Your task to perform on an android device: Show the shopping cart on newegg.com. Add "razer nari" to the cart on newegg.com Image 0: 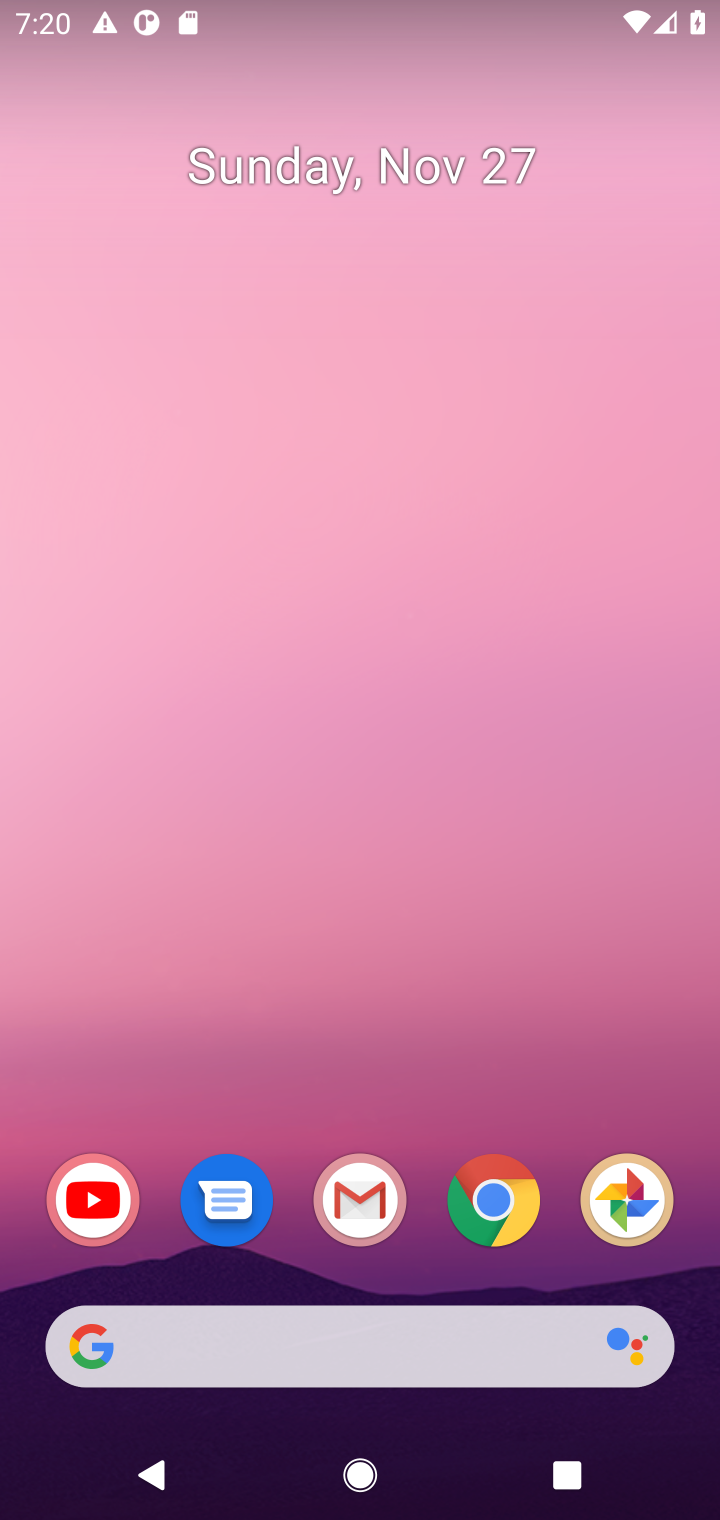
Step 0: click (503, 1212)
Your task to perform on an android device: Show the shopping cart on newegg.com. Add "razer nari" to the cart on newegg.com Image 1: 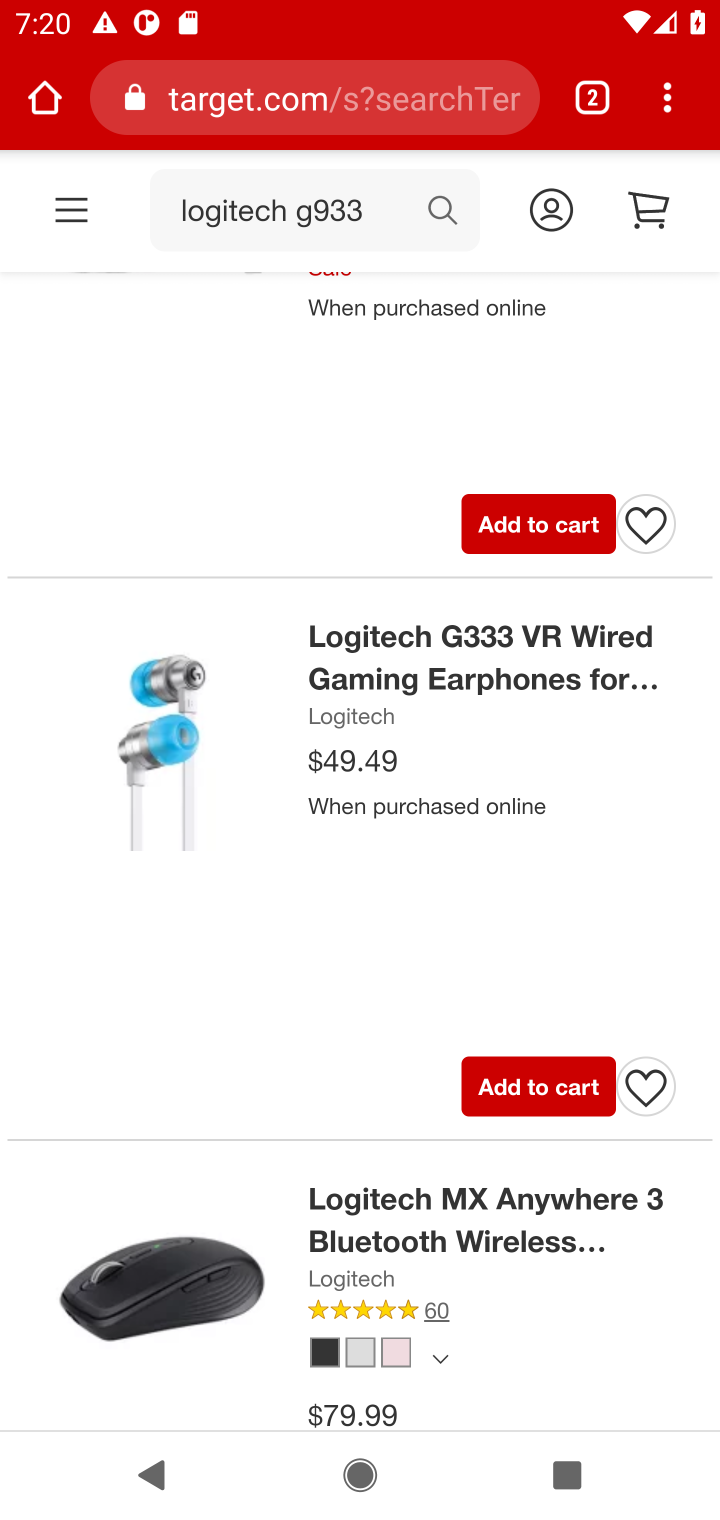
Step 1: click (232, 104)
Your task to perform on an android device: Show the shopping cart on newegg.com. Add "razer nari" to the cart on newegg.com Image 2: 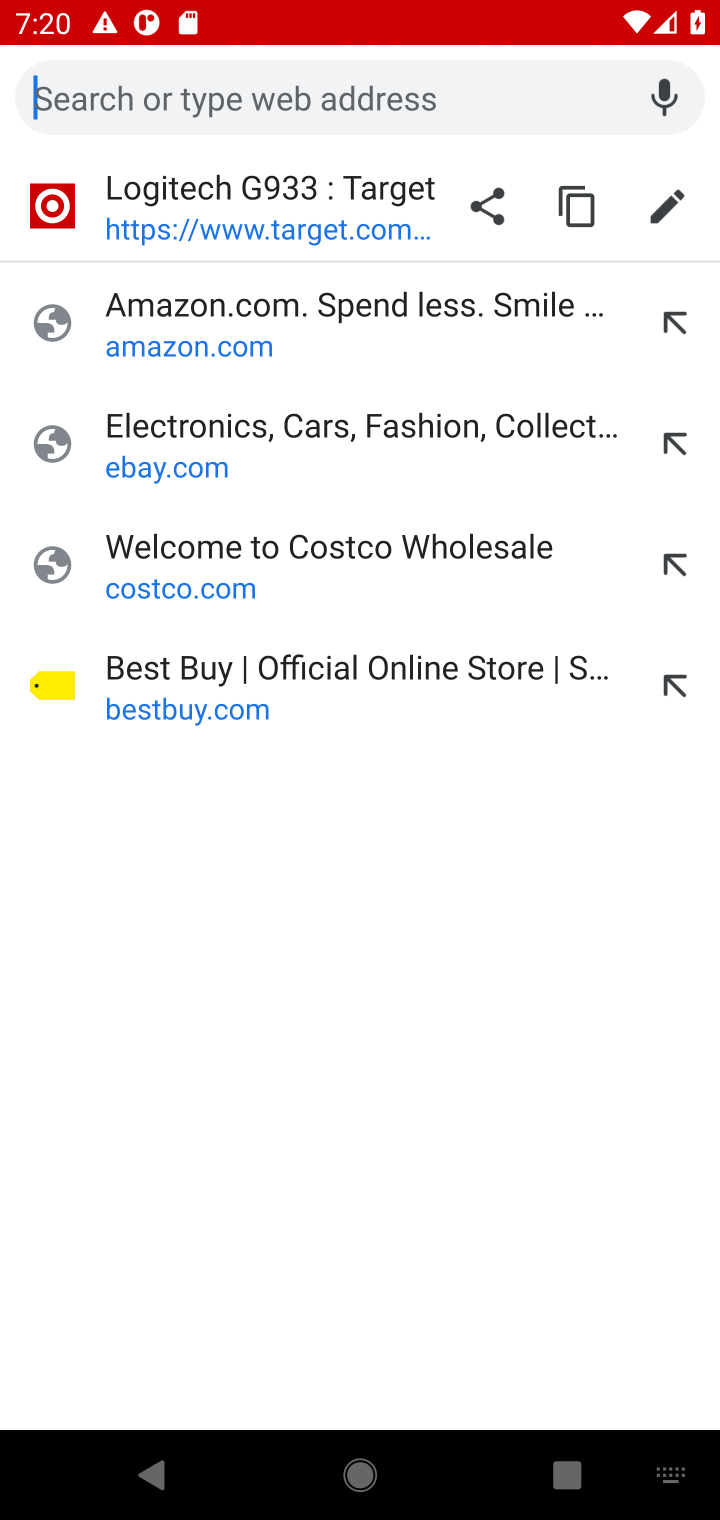
Step 2: type "newegg.com"
Your task to perform on an android device: Show the shopping cart on newegg.com. Add "razer nari" to the cart on newegg.com Image 3: 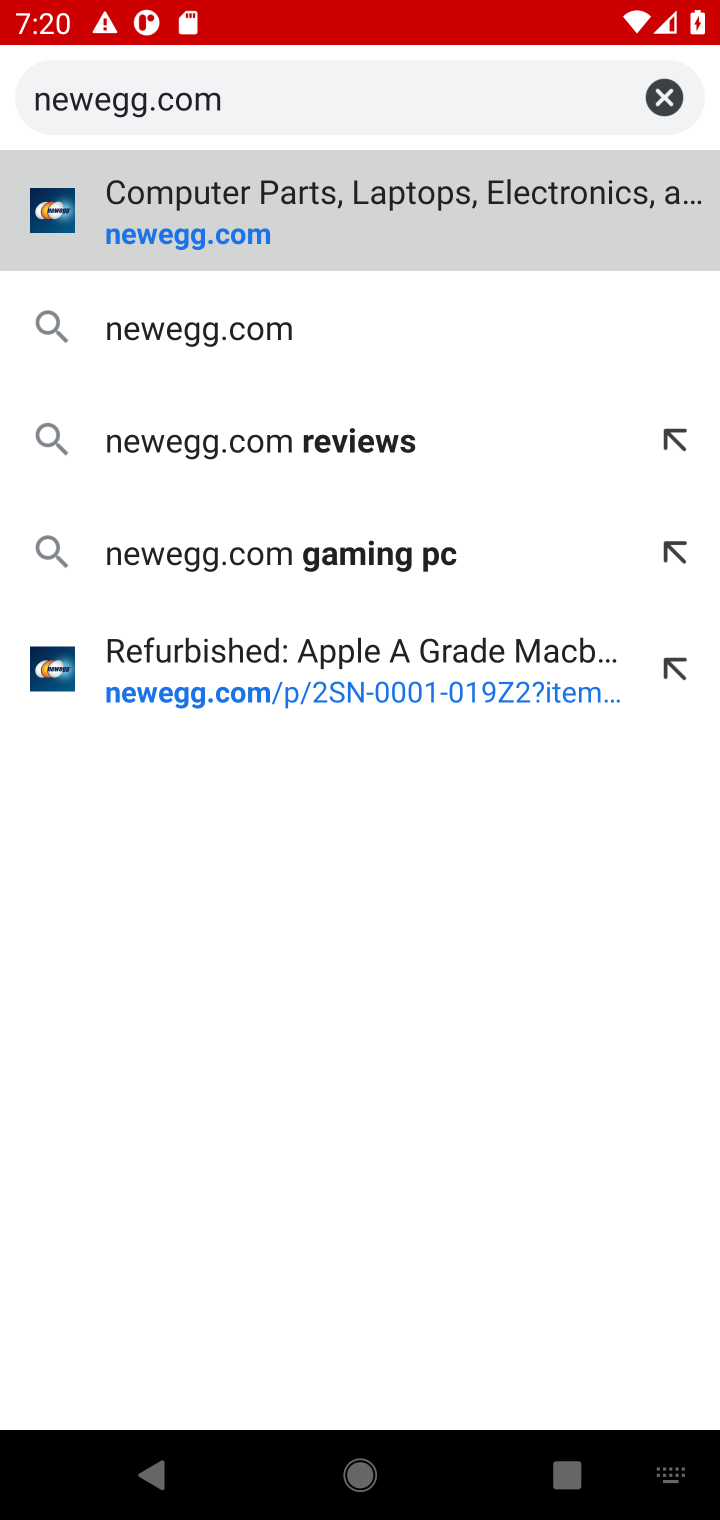
Step 3: click (178, 247)
Your task to perform on an android device: Show the shopping cart on newegg.com. Add "razer nari" to the cart on newegg.com Image 4: 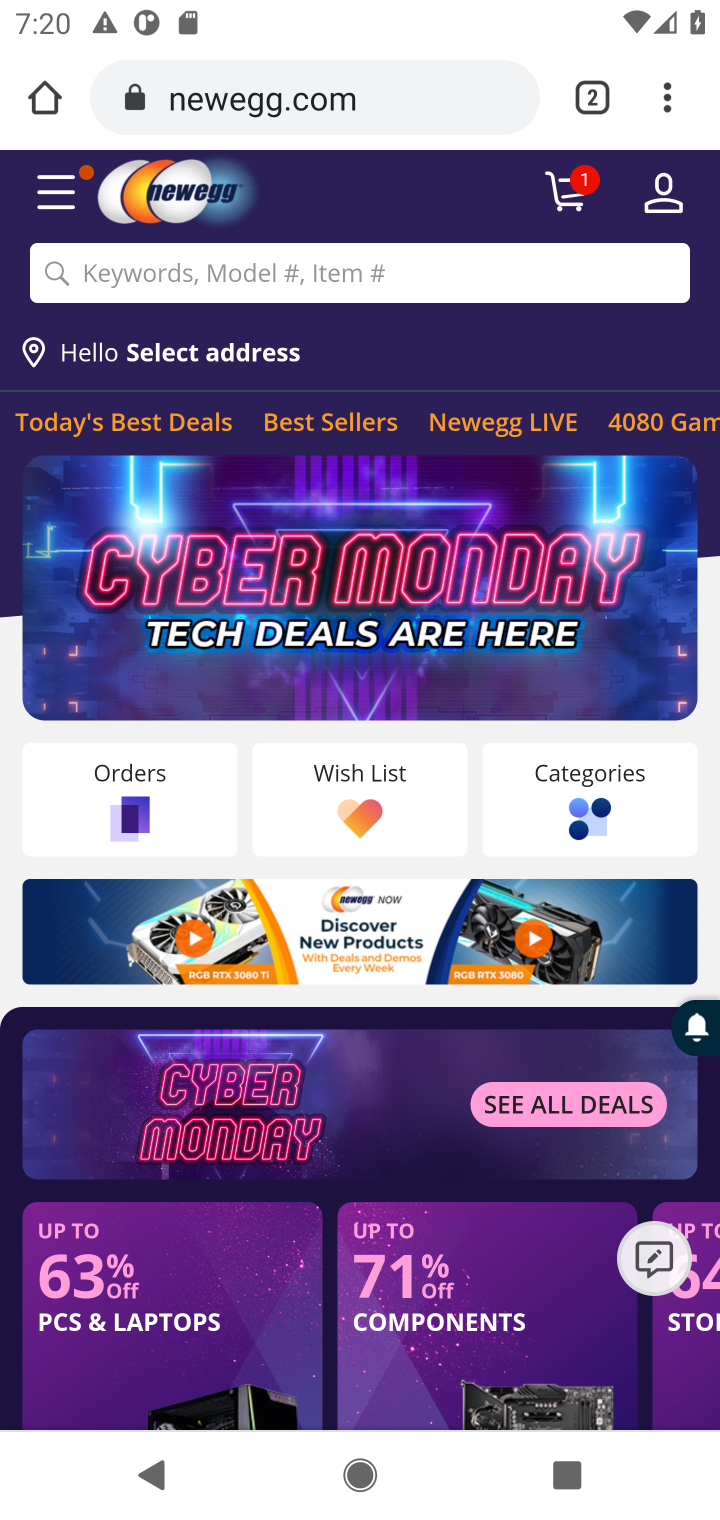
Step 4: click (574, 187)
Your task to perform on an android device: Show the shopping cart on newegg.com. Add "razer nari" to the cart on newegg.com Image 5: 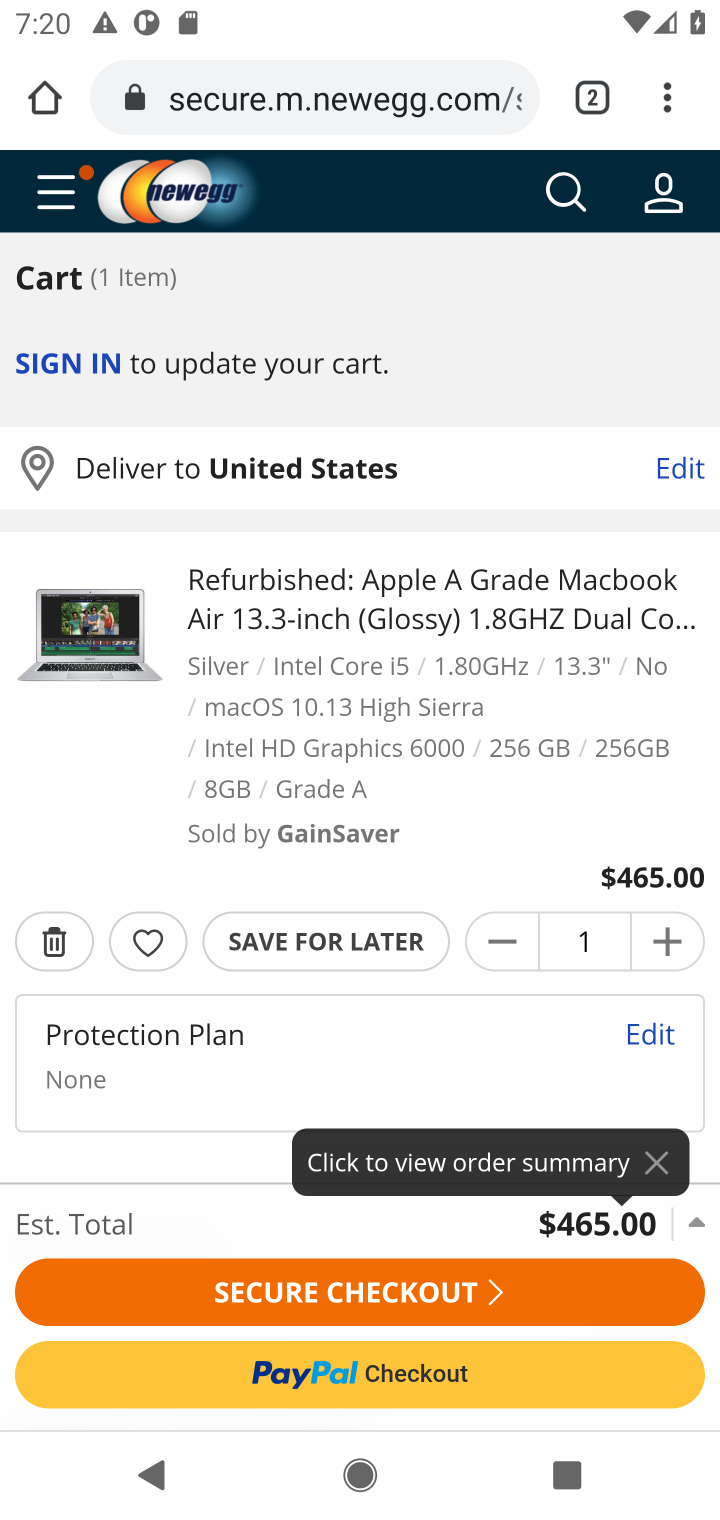
Step 5: click (556, 197)
Your task to perform on an android device: Show the shopping cart on newegg.com. Add "razer nari" to the cart on newegg.com Image 6: 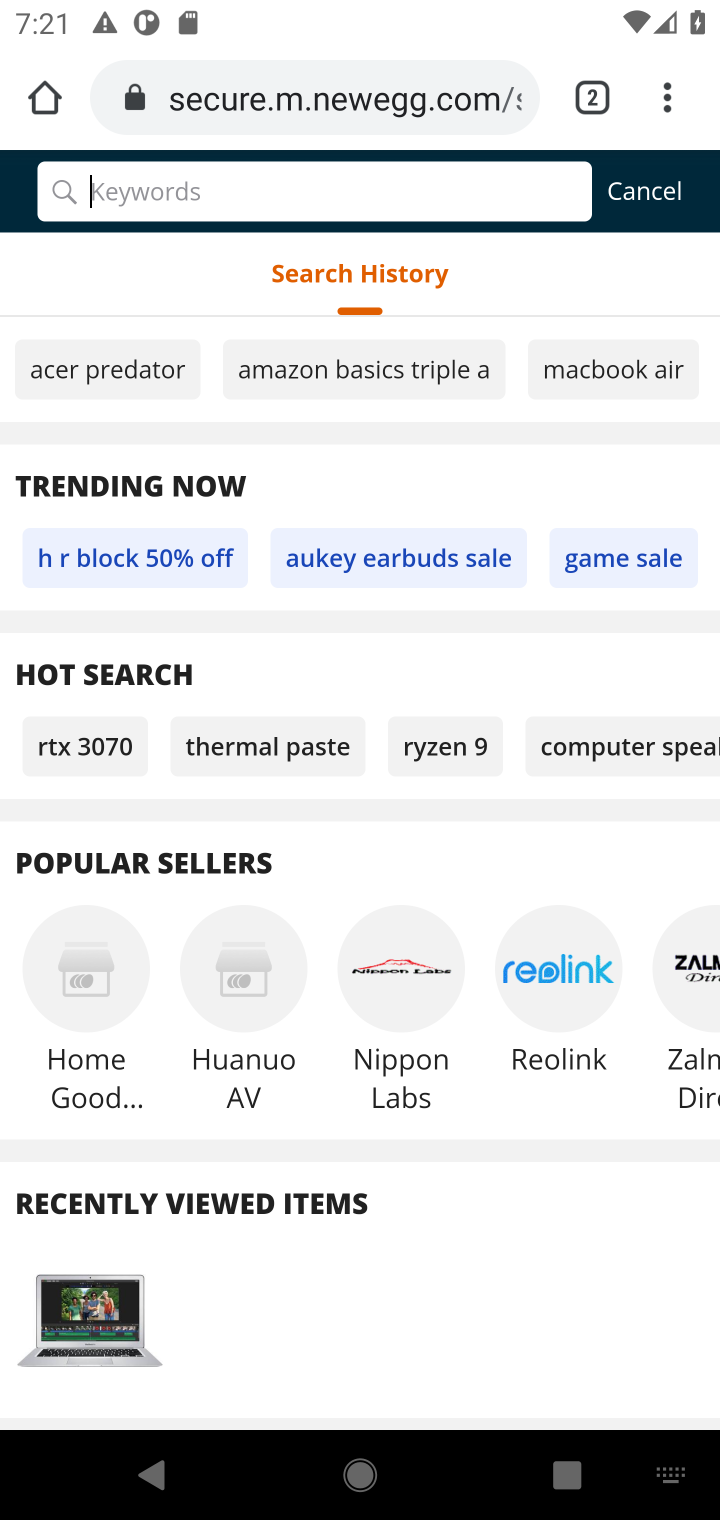
Step 6: type "razer nari"
Your task to perform on an android device: Show the shopping cart on newegg.com. Add "razer nari" to the cart on newegg.com Image 7: 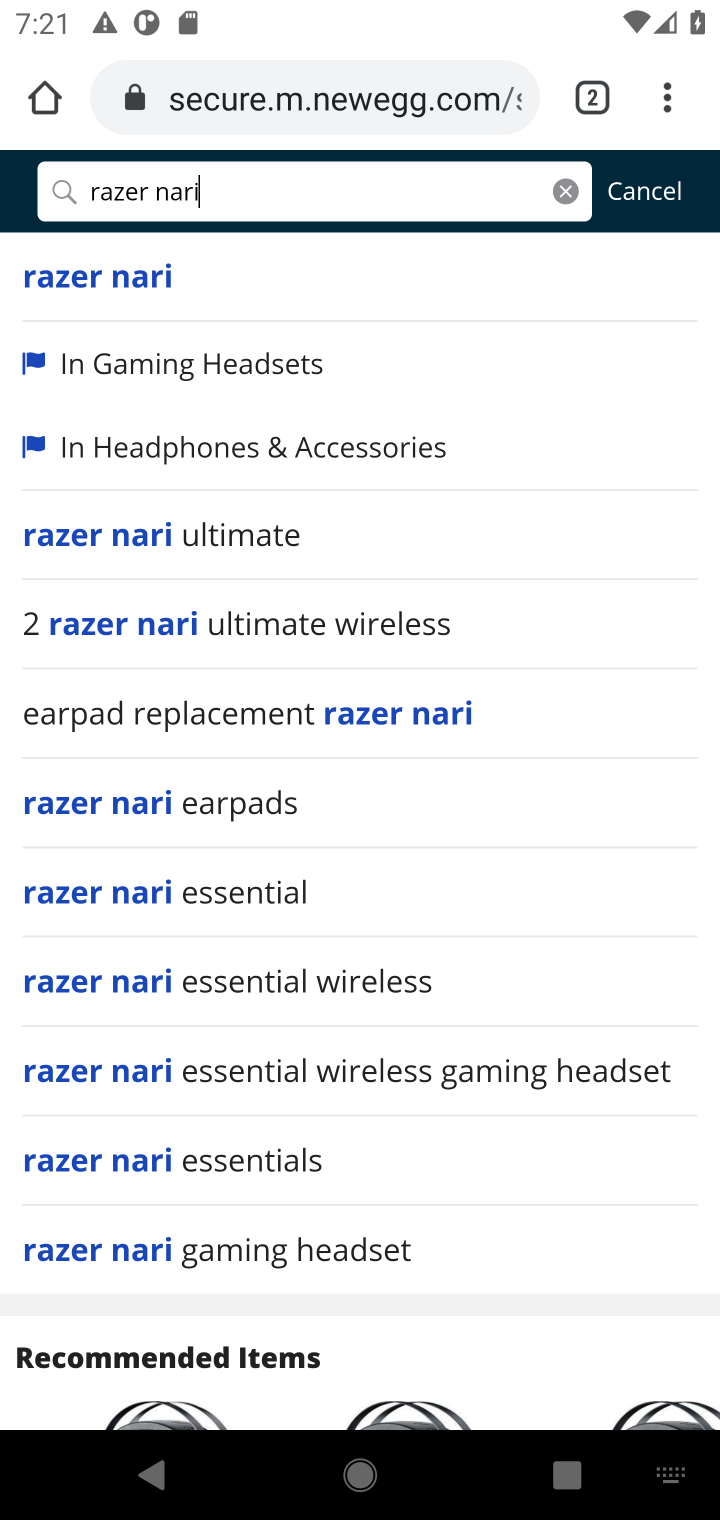
Step 7: click (129, 279)
Your task to perform on an android device: Show the shopping cart on newegg.com. Add "razer nari" to the cart on newegg.com Image 8: 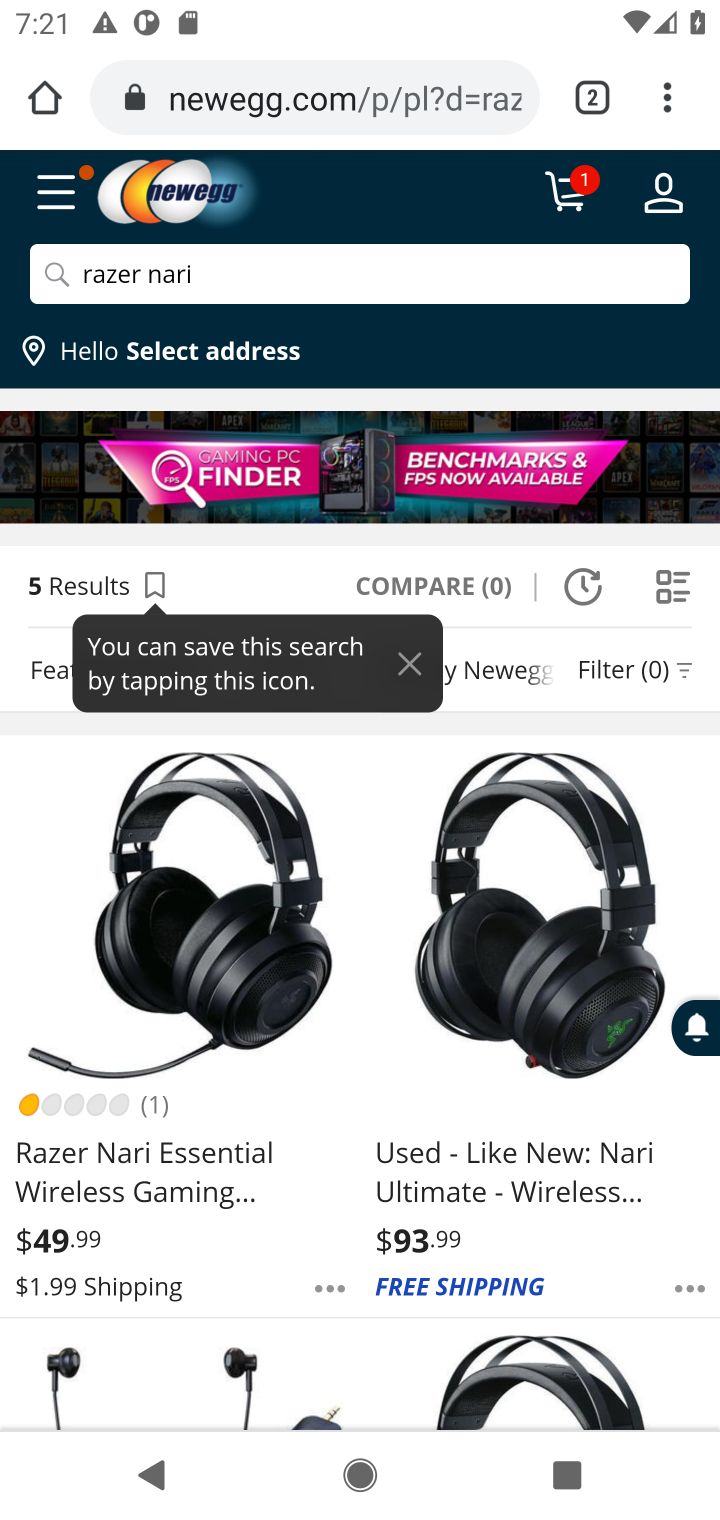
Step 8: click (126, 1102)
Your task to perform on an android device: Show the shopping cart on newegg.com. Add "razer nari" to the cart on newegg.com Image 9: 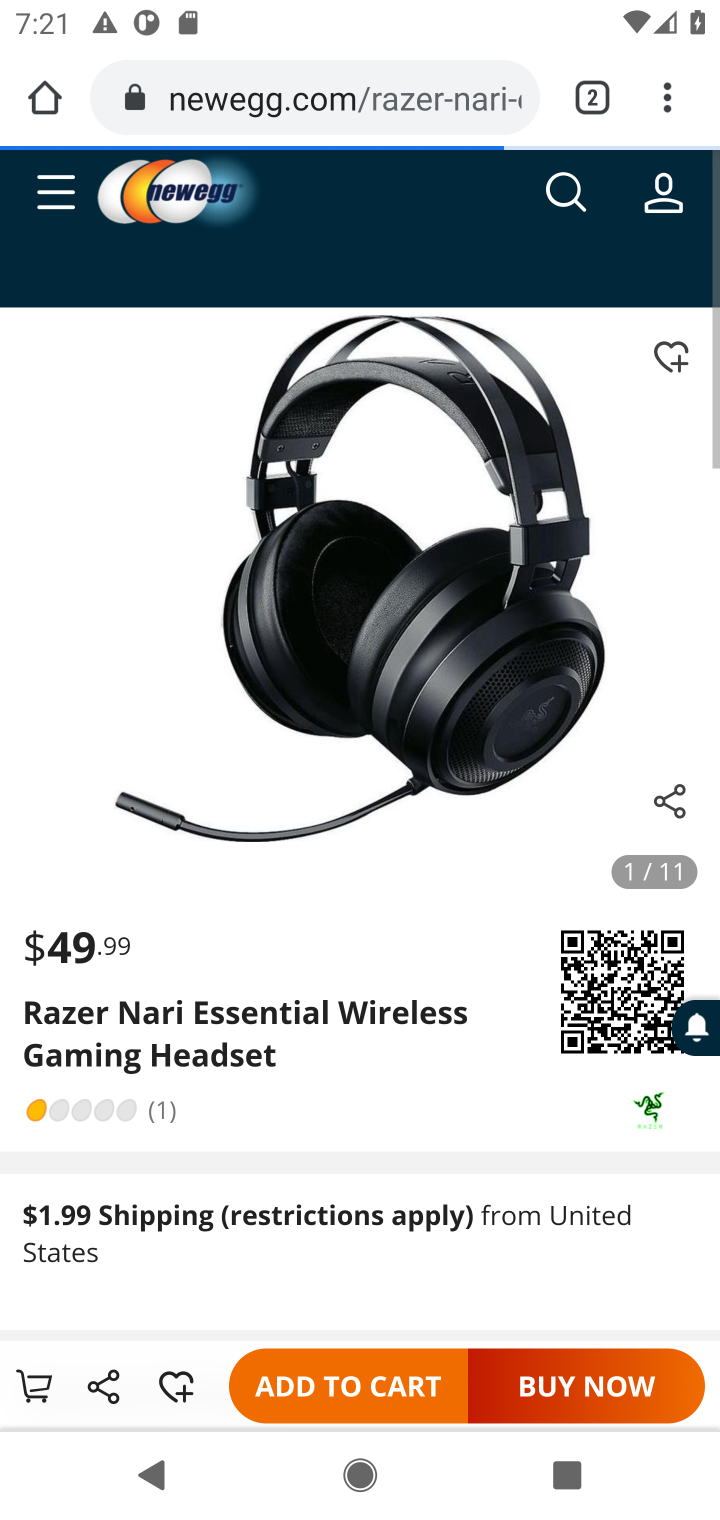
Step 9: click (198, 1020)
Your task to perform on an android device: Show the shopping cart on newegg.com. Add "razer nari" to the cart on newegg.com Image 10: 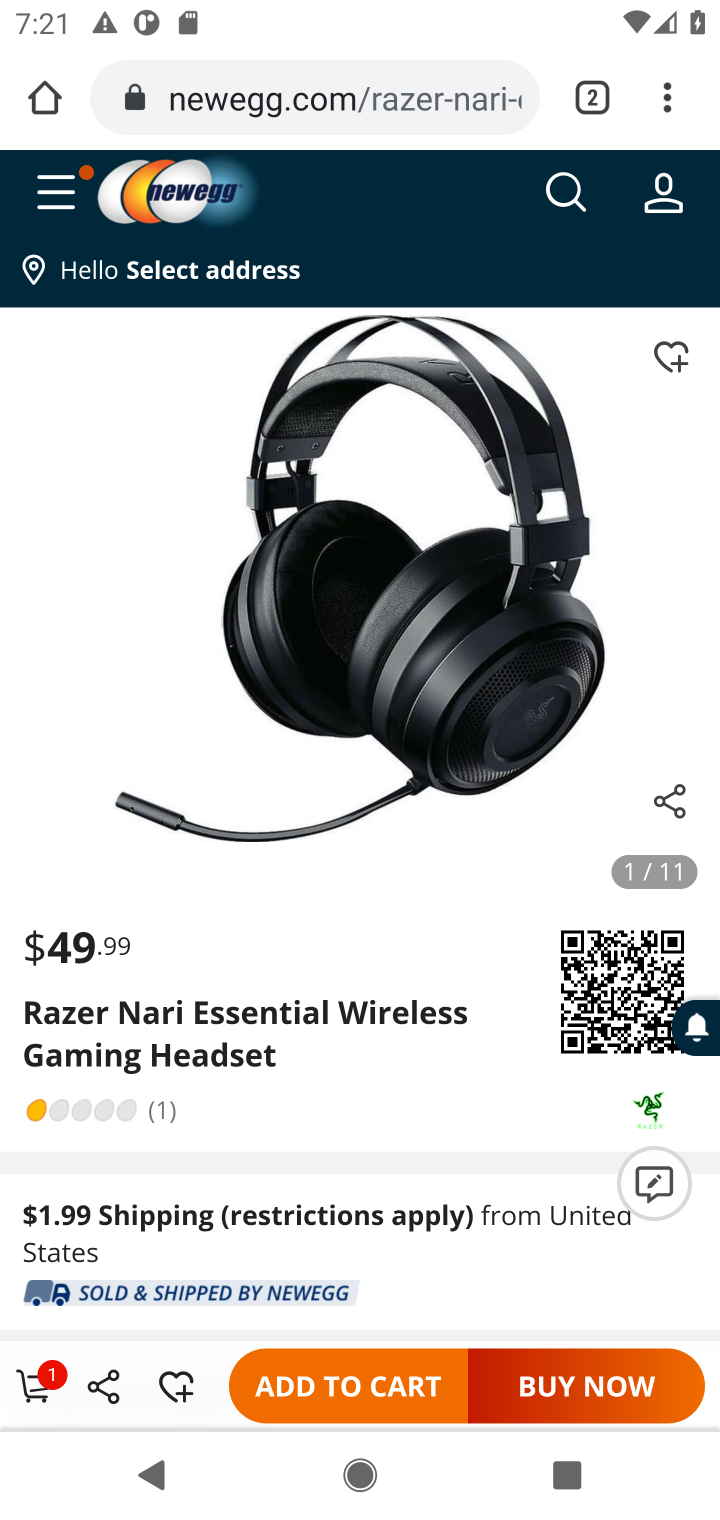
Step 10: click (304, 1382)
Your task to perform on an android device: Show the shopping cart on newegg.com. Add "razer nari" to the cart on newegg.com Image 11: 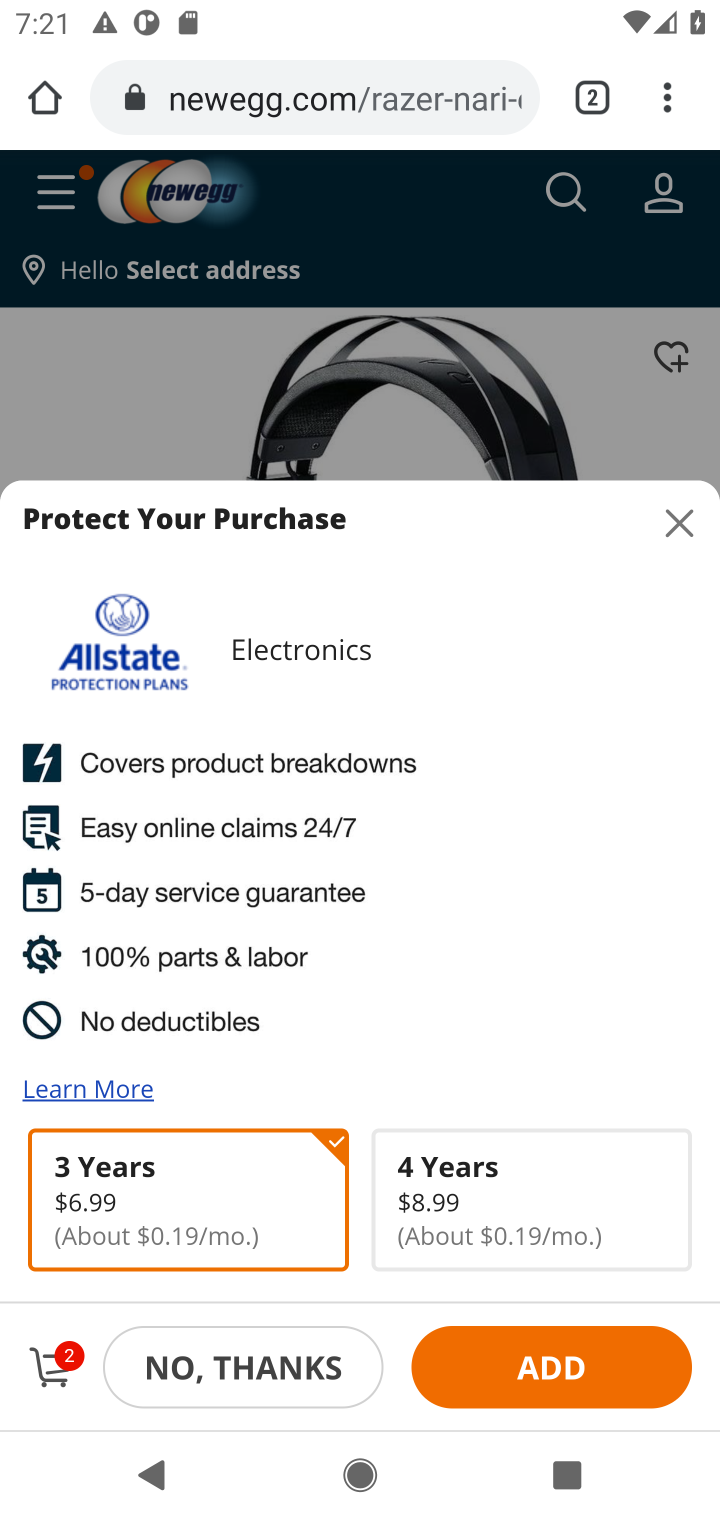
Step 11: task complete